Your task to perform on an android device: Open calendar and show me the fourth week of next month Image 0: 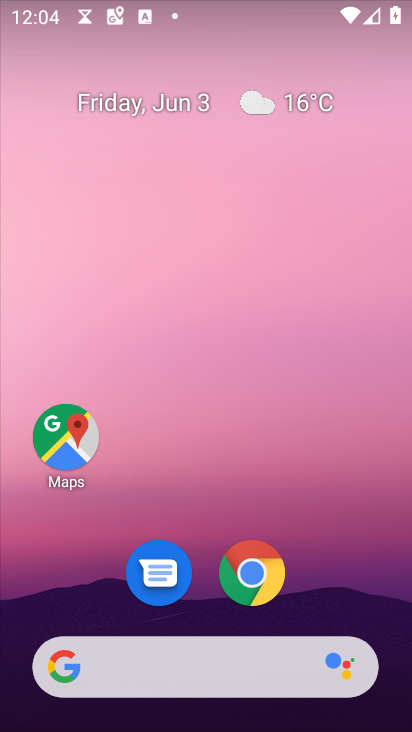
Step 0: drag from (352, 548) to (253, 20)
Your task to perform on an android device: Open calendar and show me the fourth week of next month Image 1: 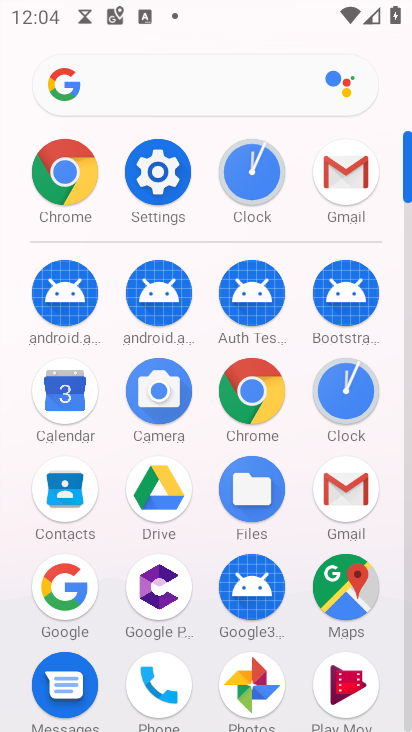
Step 1: click (74, 380)
Your task to perform on an android device: Open calendar and show me the fourth week of next month Image 2: 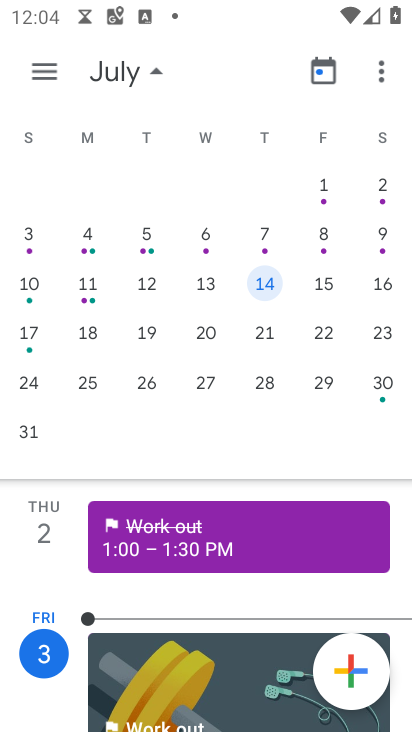
Step 2: drag from (302, 372) to (2, 427)
Your task to perform on an android device: Open calendar and show me the fourth week of next month Image 3: 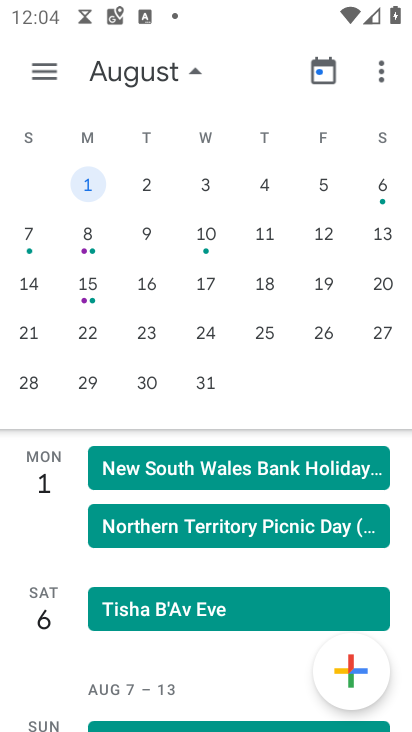
Step 3: click (25, 391)
Your task to perform on an android device: Open calendar and show me the fourth week of next month Image 4: 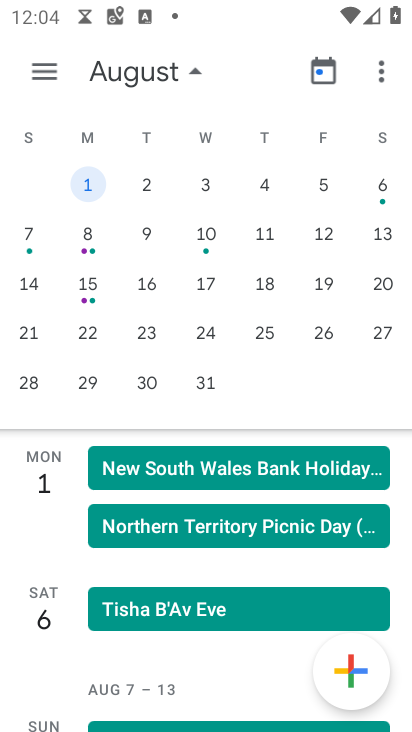
Step 4: click (25, 391)
Your task to perform on an android device: Open calendar and show me the fourth week of next month Image 5: 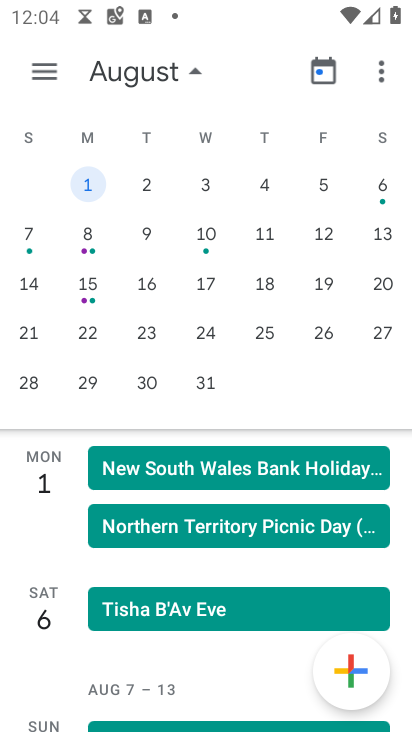
Step 5: task complete